Your task to perform on an android device: What's the weather? Image 0: 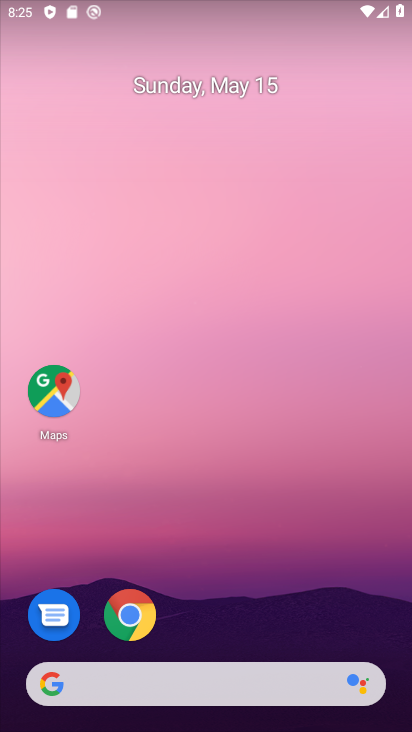
Step 0: drag from (232, 518) to (186, 24)
Your task to perform on an android device: What's the weather? Image 1: 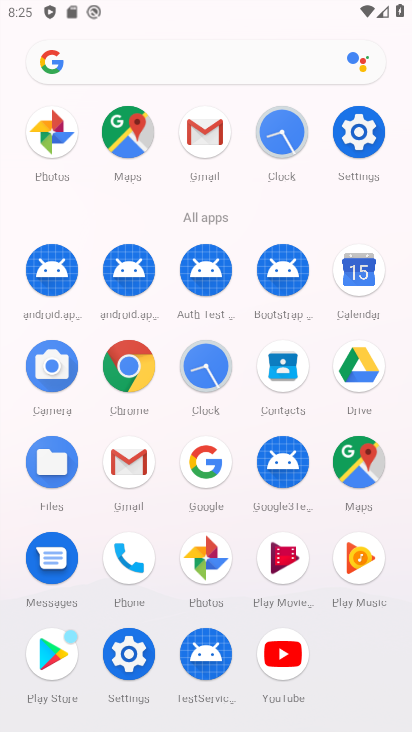
Step 1: drag from (2, 509) to (16, 263)
Your task to perform on an android device: What's the weather? Image 2: 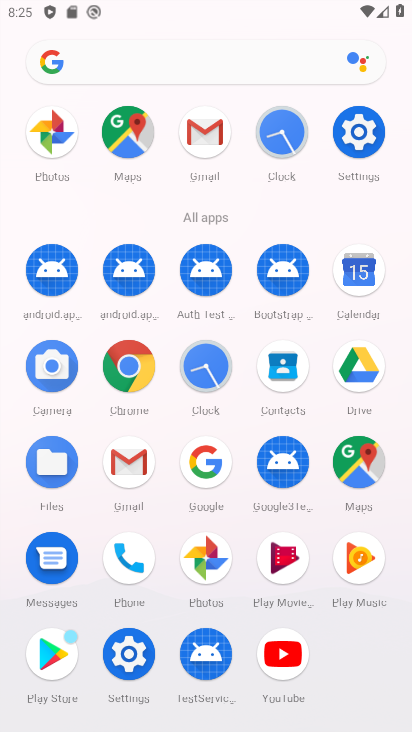
Step 2: click (131, 363)
Your task to perform on an android device: What's the weather? Image 3: 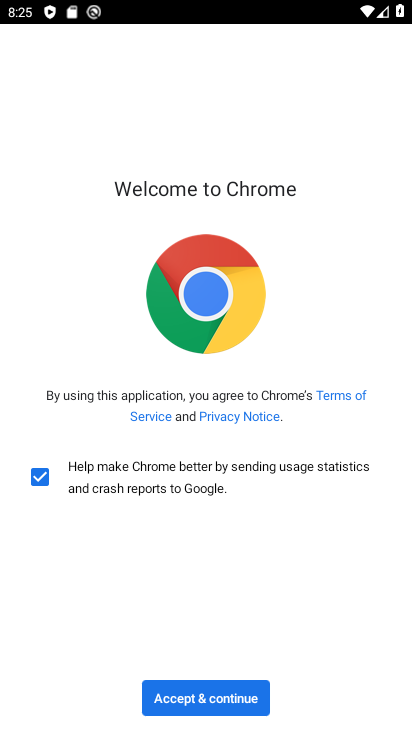
Step 3: click (235, 695)
Your task to perform on an android device: What's the weather? Image 4: 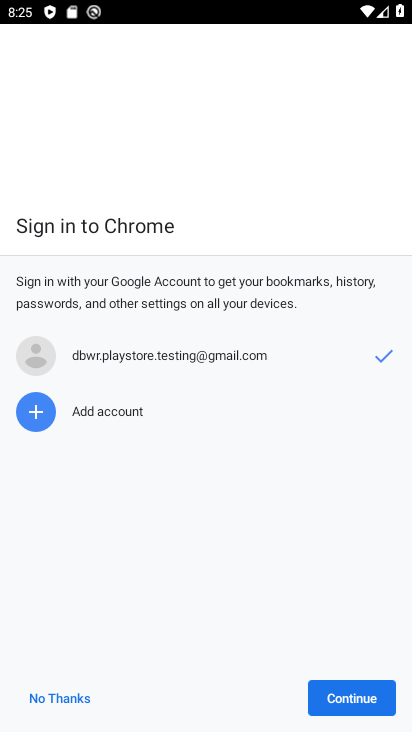
Step 4: click (334, 687)
Your task to perform on an android device: What's the weather? Image 5: 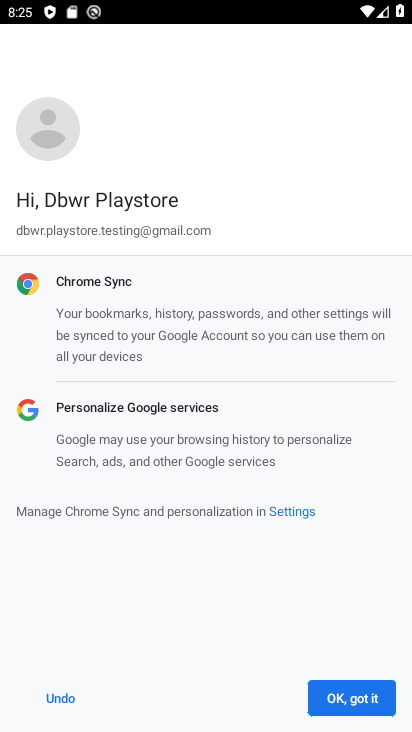
Step 5: click (328, 694)
Your task to perform on an android device: What's the weather? Image 6: 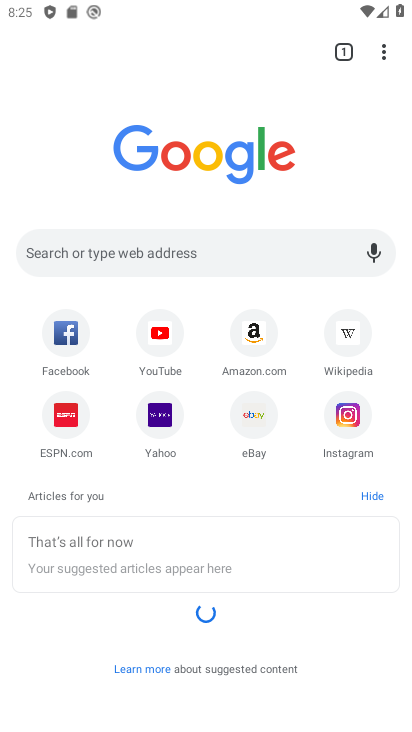
Step 6: click (180, 258)
Your task to perform on an android device: What's the weather? Image 7: 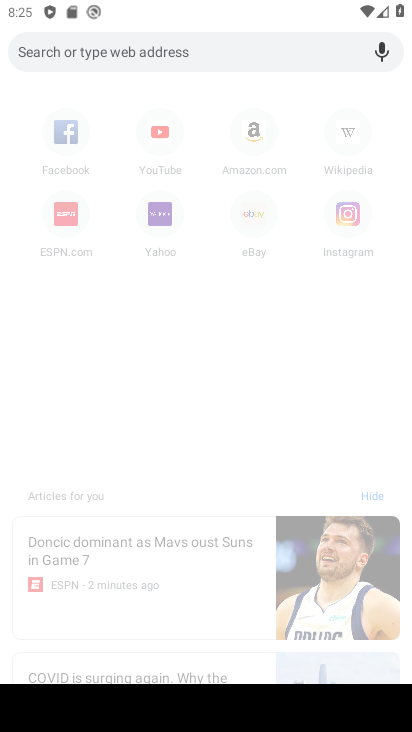
Step 7: type "What's the weather?"
Your task to perform on an android device: What's the weather? Image 8: 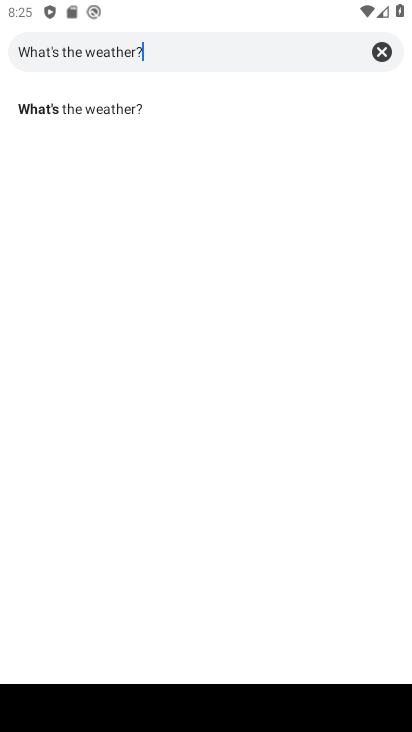
Step 8: type ""
Your task to perform on an android device: What's the weather? Image 9: 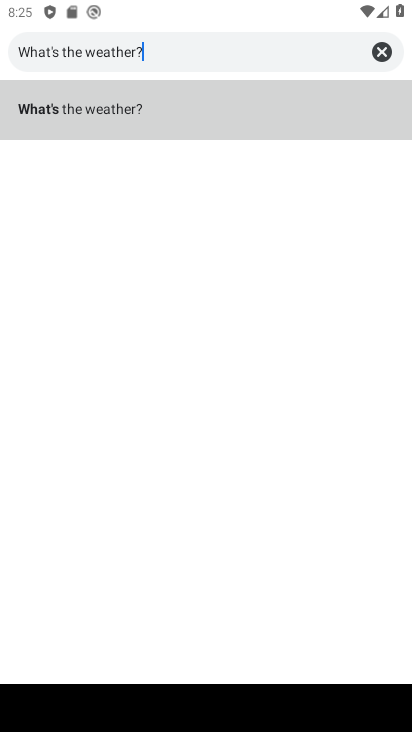
Step 9: click (177, 124)
Your task to perform on an android device: What's the weather? Image 10: 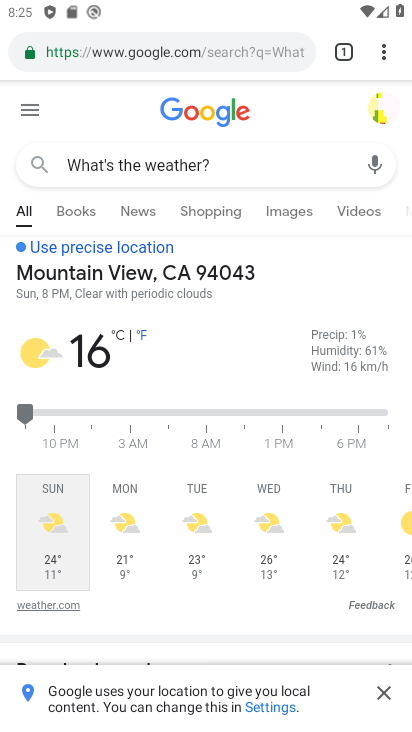
Step 10: task complete